Your task to perform on an android device: turn vacation reply on in the gmail app Image 0: 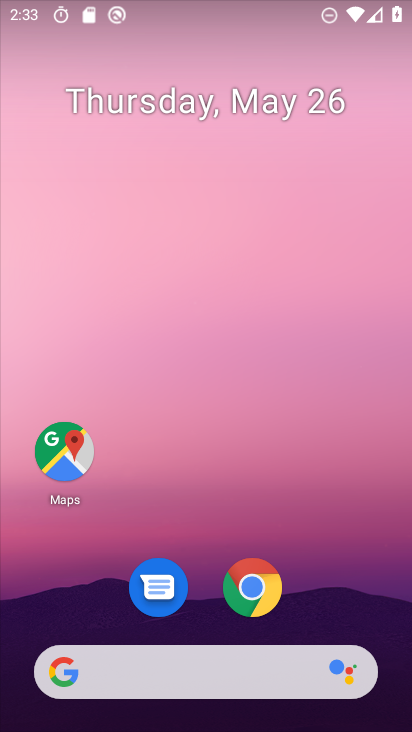
Step 0: drag from (324, 477) to (295, 64)
Your task to perform on an android device: turn vacation reply on in the gmail app Image 1: 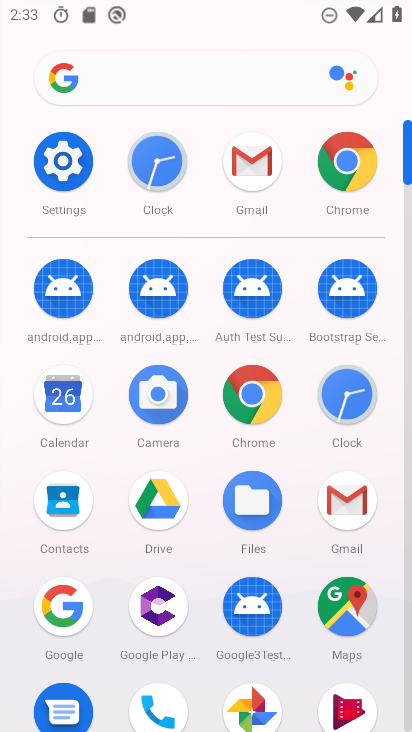
Step 1: click (240, 160)
Your task to perform on an android device: turn vacation reply on in the gmail app Image 2: 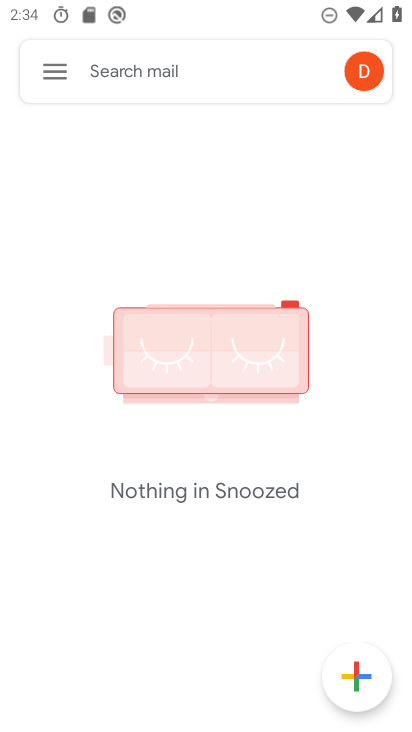
Step 2: click (48, 60)
Your task to perform on an android device: turn vacation reply on in the gmail app Image 3: 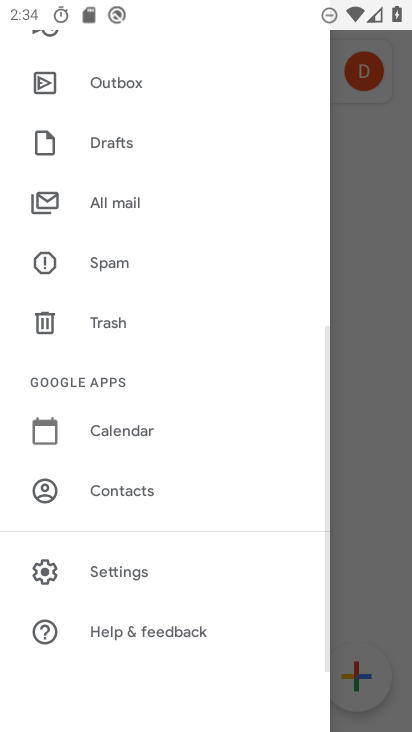
Step 3: click (130, 565)
Your task to perform on an android device: turn vacation reply on in the gmail app Image 4: 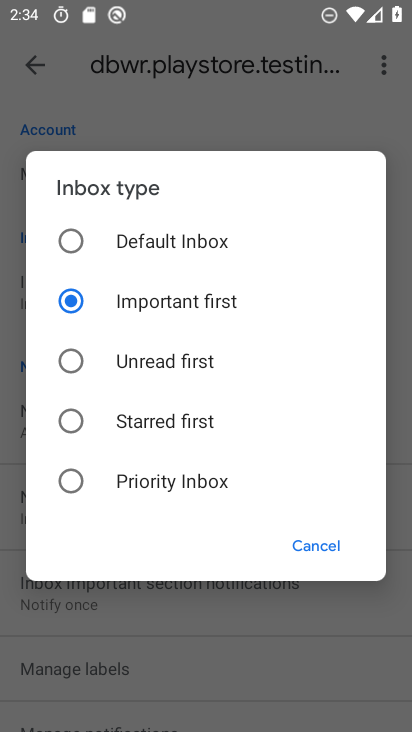
Step 4: click (332, 543)
Your task to perform on an android device: turn vacation reply on in the gmail app Image 5: 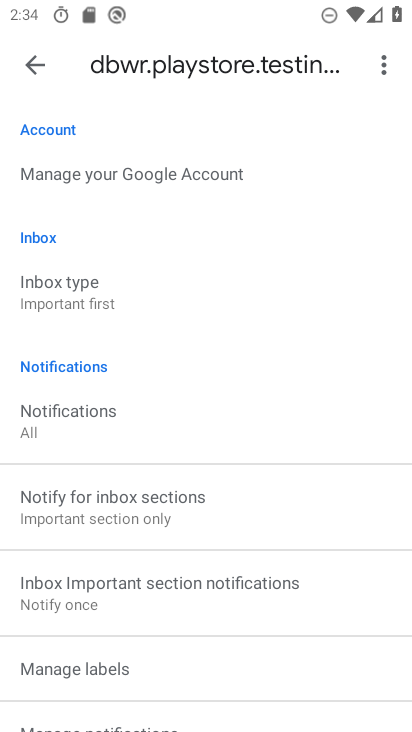
Step 5: drag from (269, 570) to (252, 65)
Your task to perform on an android device: turn vacation reply on in the gmail app Image 6: 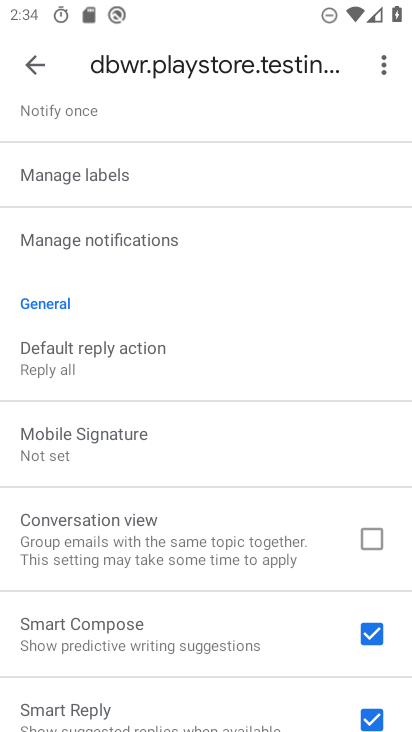
Step 6: drag from (248, 559) to (265, 202)
Your task to perform on an android device: turn vacation reply on in the gmail app Image 7: 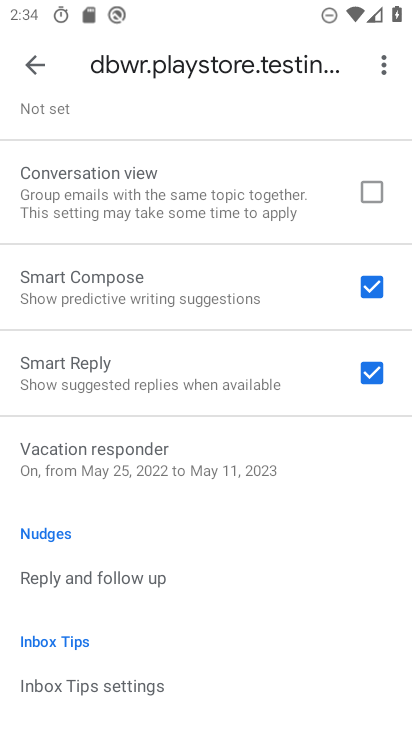
Step 7: click (239, 476)
Your task to perform on an android device: turn vacation reply on in the gmail app Image 8: 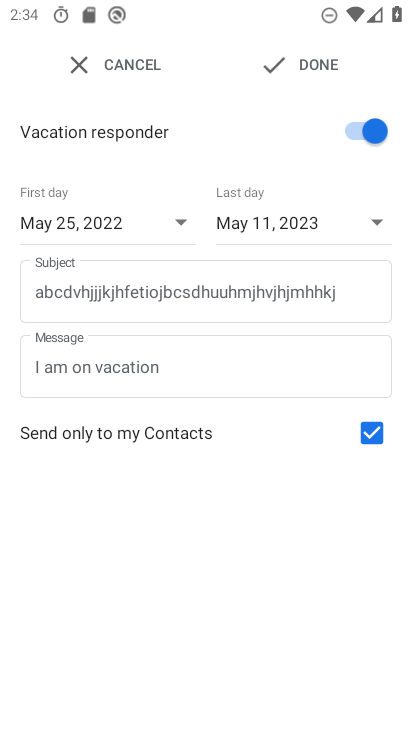
Step 8: task complete